Your task to perform on an android device: Go to Reddit.com Image 0: 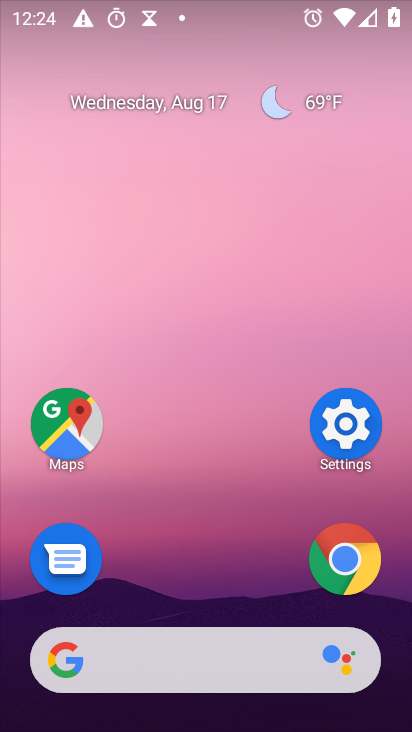
Step 0: click (343, 564)
Your task to perform on an android device: Go to Reddit.com Image 1: 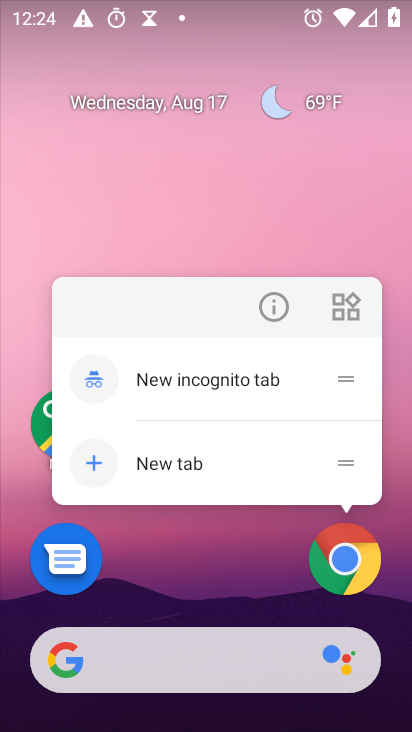
Step 1: click (342, 565)
Your task to perform on an android device: Go to Reddit.com Image 2: 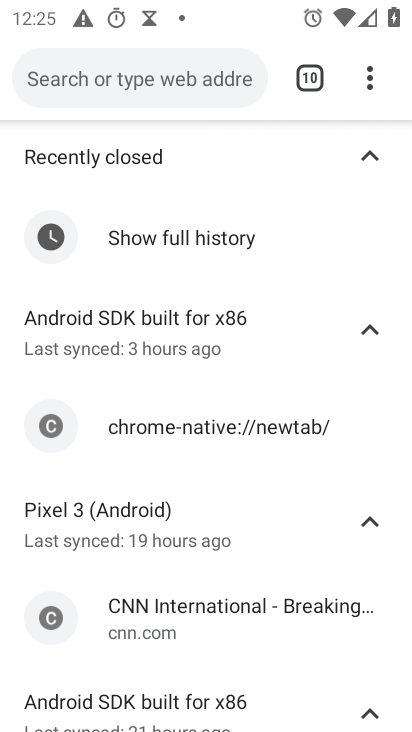
Step 2: drag from (369, 85) to (210, 154)
Your task to perform on an android device: Go to Reddit.com Image 3: 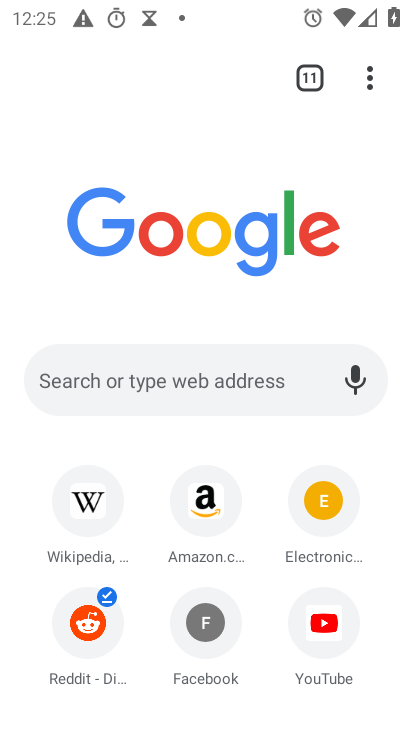
Step 3: click (79, 616)
Your task to perform on an android device: Go to Reddit.com Image 4: 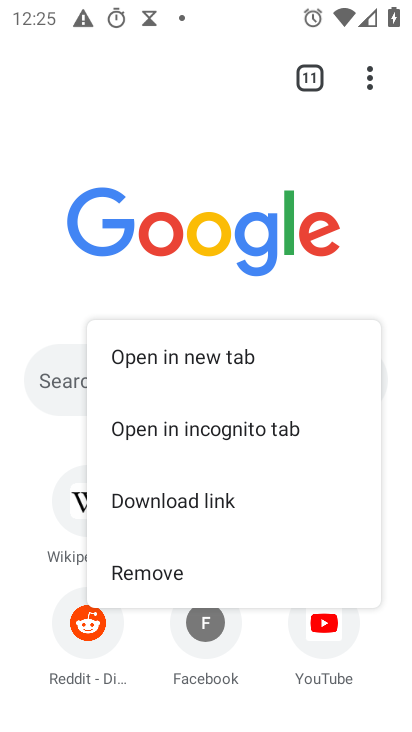
Step 4: click (76, 625)
Your task to perform on an android device: Go to Reddit.com Image 5: 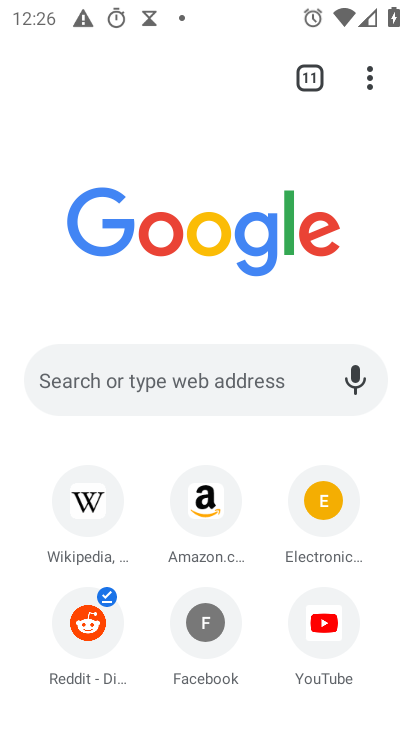
Step 5: click (85, 617)
Your task to perform on an android device: Go to Reddit.com Image 6: 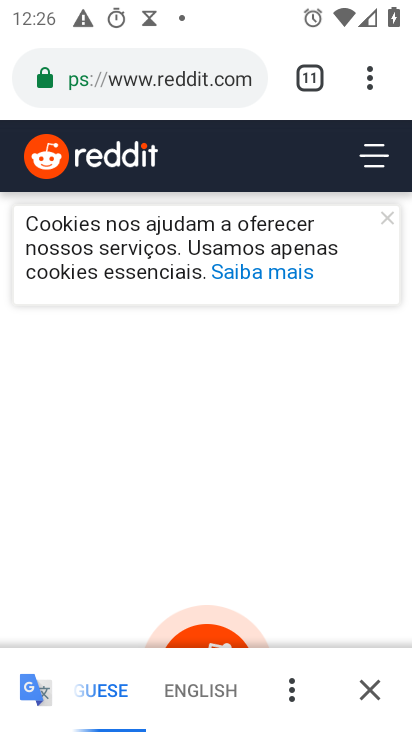
Step 6: click (200, 687)
Your task to perform on an android device: Go to Reddit.com Image 7: 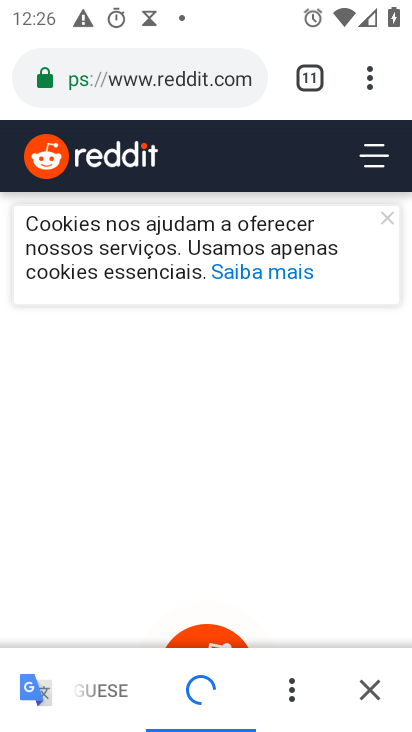
Step 7: task complete